Your task to perform on an android device: turn on priority inbox in the gmail app Image 0: 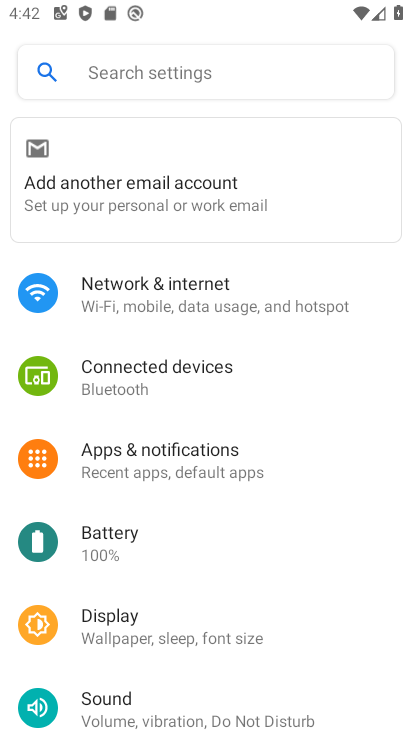
Step 0: press home button
Your task to perform on an android device: turn on priority inbox in the gmail app Image 1: 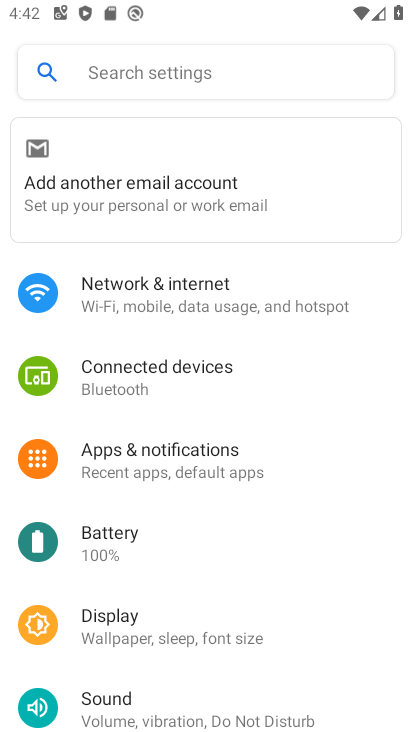
Step 1: drag from (260, 622) to (393, 111)
Your task to perform on an android device: turn on priority inbox in the gmail app Image 2: 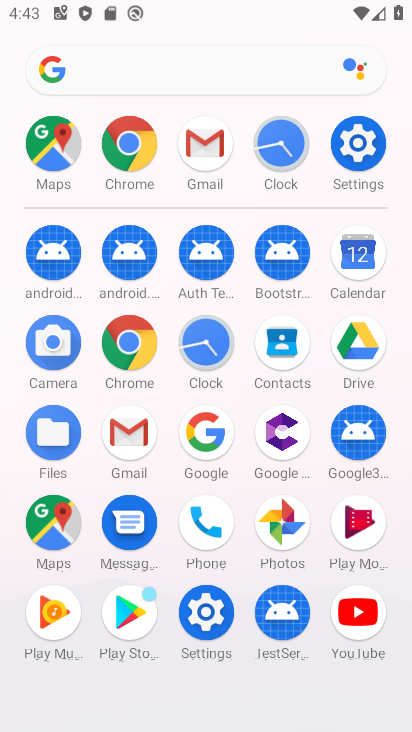
Step 2: click (129, 445)
Your task to perform on an android device: turn on priority inbox in the gmail app Image 3: 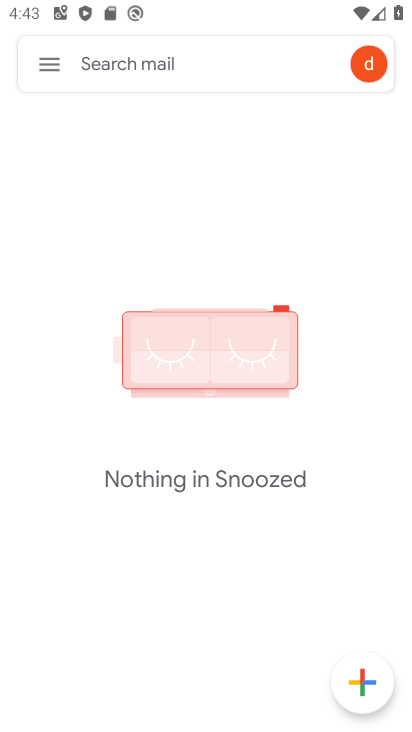
Step 3: drag from (250, 639) to (335, 329)
Your task to perform on an android device: turn on priority inbox in the gmail app Image 4: 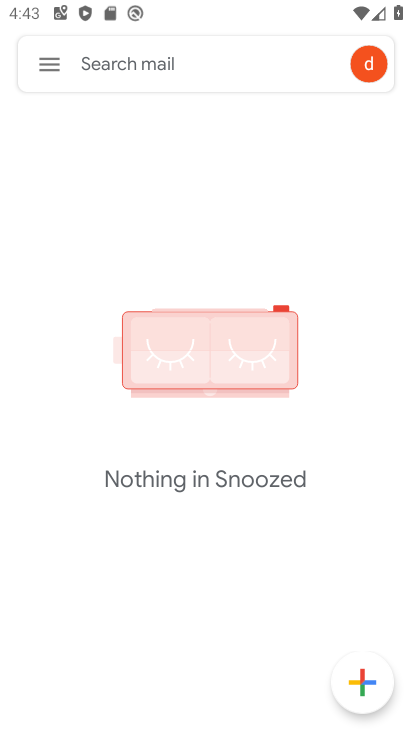
Step 4: click (347, 267)
Your task to perform on an android device: turn on priority inbox in the gmail app Image 5: 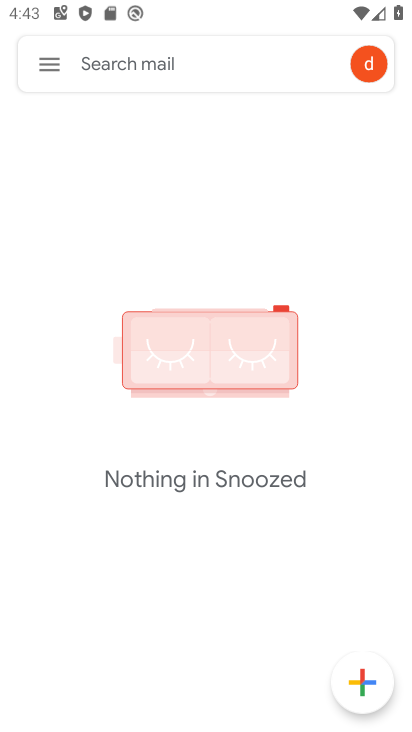
Step 5: click (341, 268)
Your task to perform on an android device: turn on priority inbox in the gmail app Image 6: 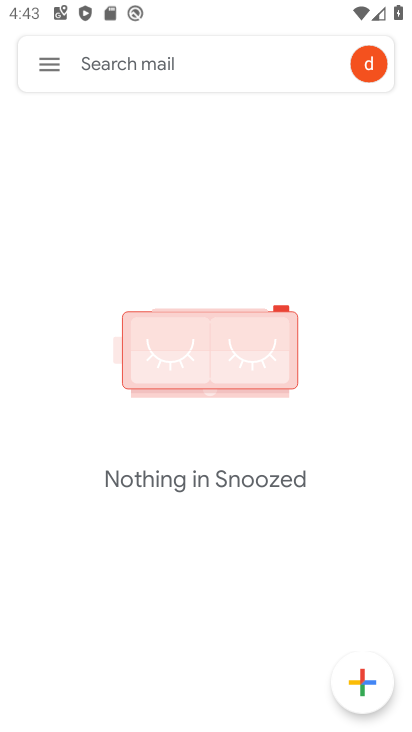
Step 6: click (32, 63)
Your task to perform on an android device: turn on priority inbox in the gmail app Image 7: 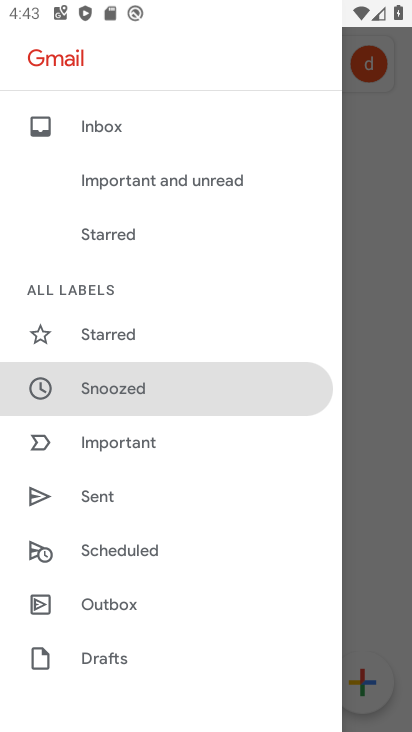
Step 7: drag from (142, 653) to (307, 80)
Your task to perform on an android device: turn on priority inbox in the gmail app Image 8: 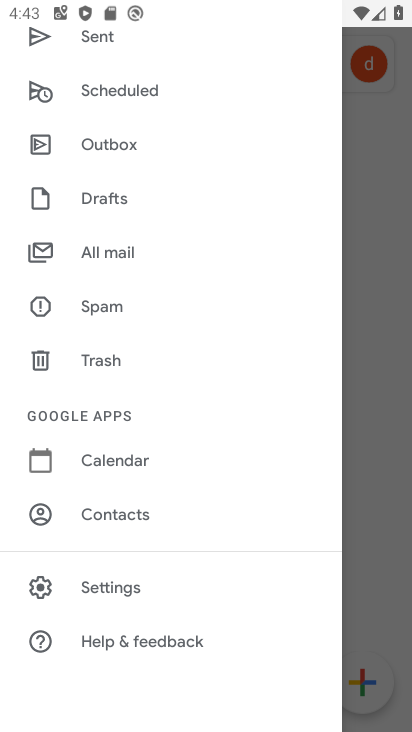
Step 8: click (116, 593)
Your task to perform on an android device: turn on priority inbox in the gmail app Image 9: 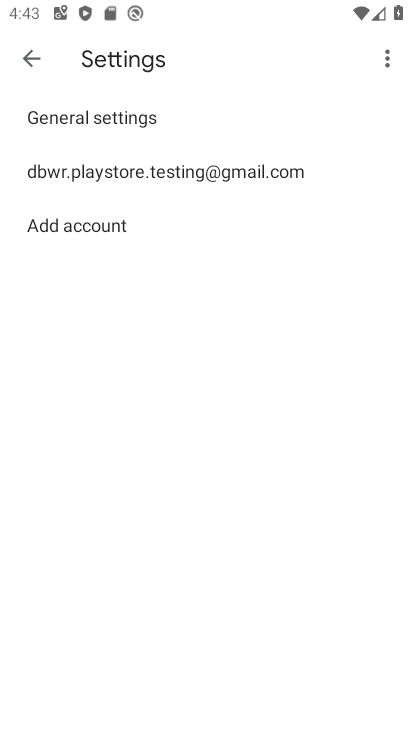
Step 9: drag from (171, 576) to (273, 206)
Your task to perform on an android device: turn on priority inbox in the gmail app Image 10: 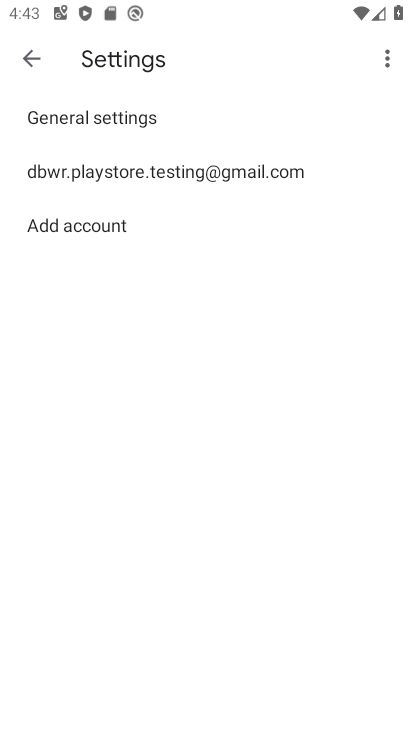
Step 10: drag from (227, 505) to (288, 230)
Your task to perform on an android device: turn on priority inbox in the gmail app Image 11: 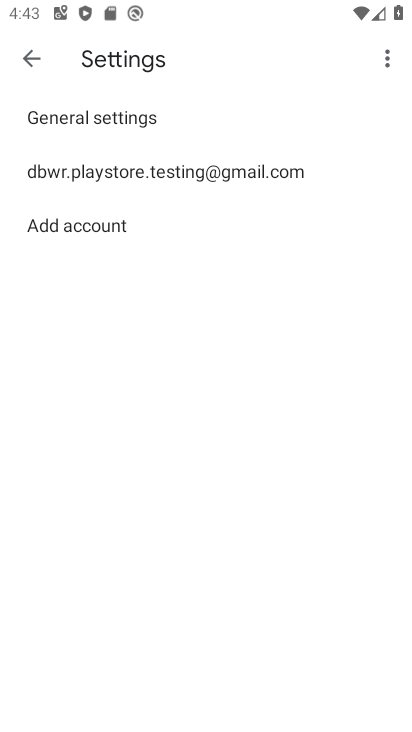
Step 11: click (237, 559)
Your task to perform on an android device: turn on priority inbox in the gmail app Image 12: 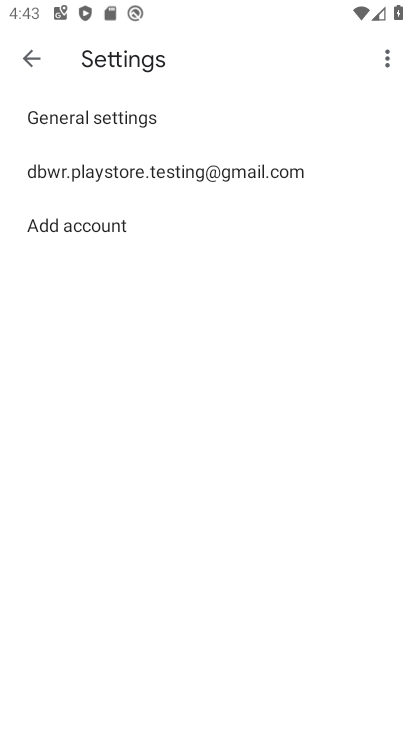
Step 12: click (237, 559)
Your task to perform on an android device: turn on priority inbox in the gmail app Image 13: 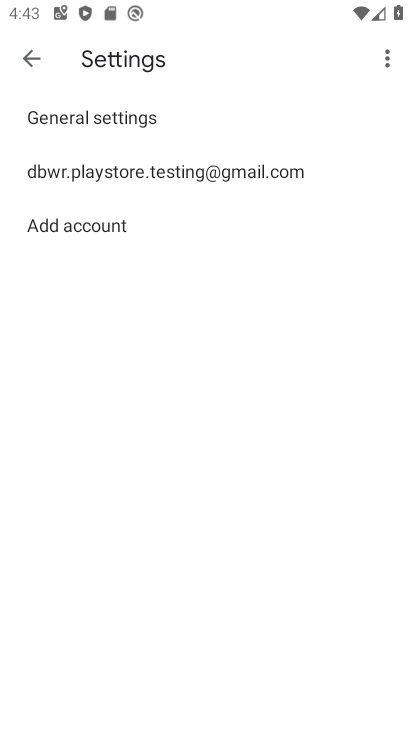
Step 13: drag from (240, 426) to (250, 540)
Your task to perform on an android device: turn on priority inbox in the gmail app Image 14: 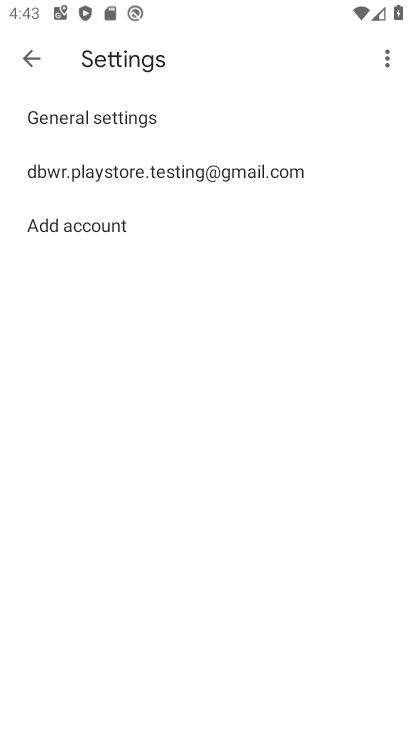
Step 14: click (175, 174)
Your task to perform on an android device: turn on priority inbox in the gmail app Image 15: 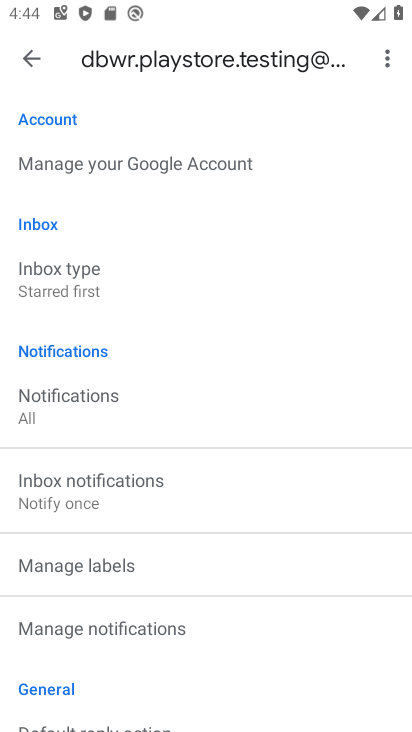
Step 15: click (120, 292)
Your task to perform on an android device: turn on priority inbox in the gmail app Image 16: 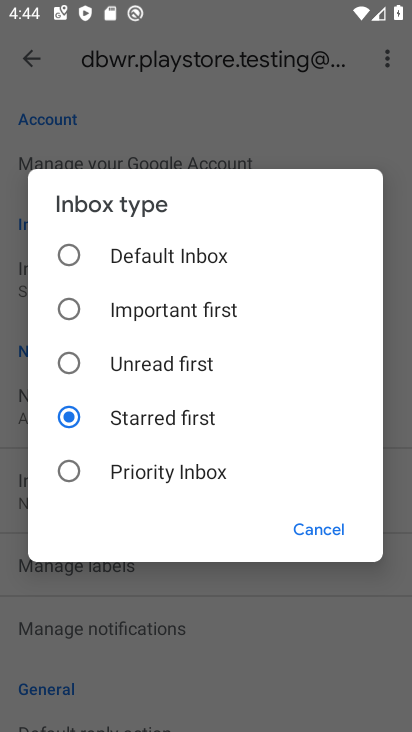
Step 16: click (81, 464)
Your task to perform on an android device: turn on priority inbox in the gmail app Image 17: 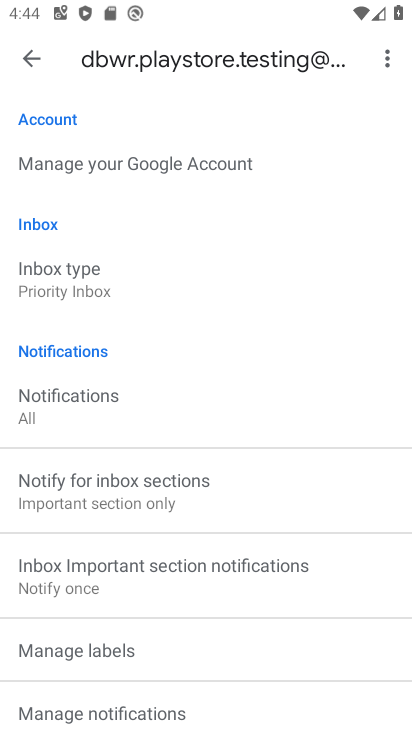
Step 17: task complete